Your task to perform on an android device: Open Chrome and go to settings Image 0: 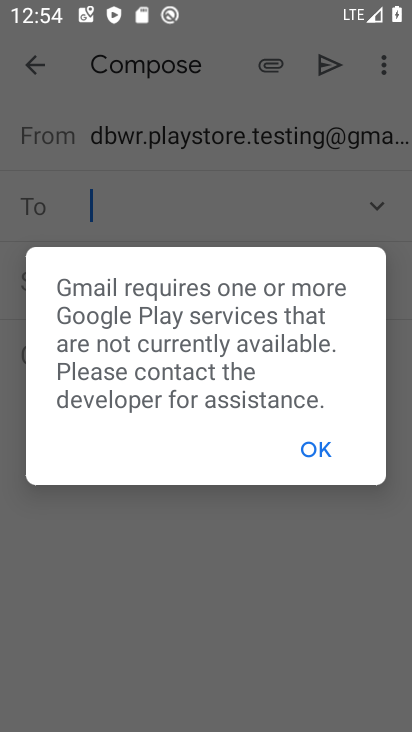
Step 0: press back button
Your task to perform on an android device: Open Chrome and go to settings Image 1: 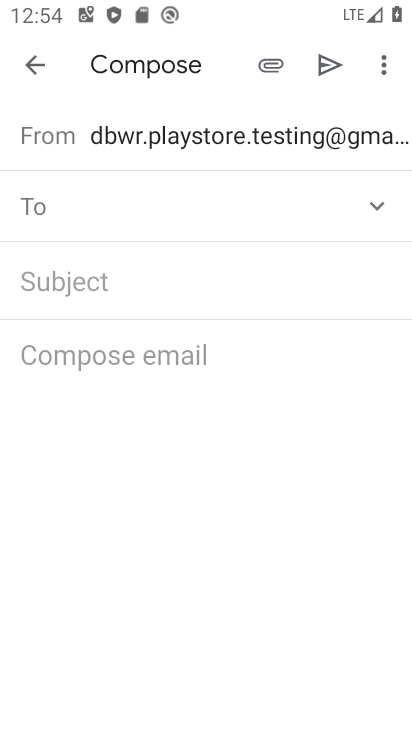
Step 1: press back button
Your task to perform on an android device: Open Chrome and go to settings Image 2: 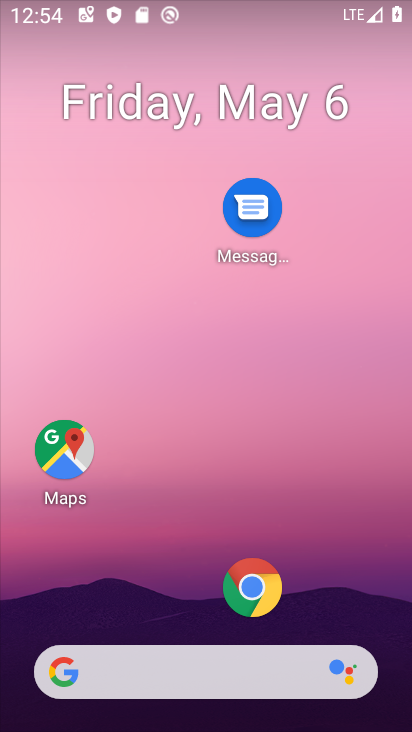
Step 2: click (240, 575)
Your task to perform on an android device: Open Chrome and go to settings Image 3: 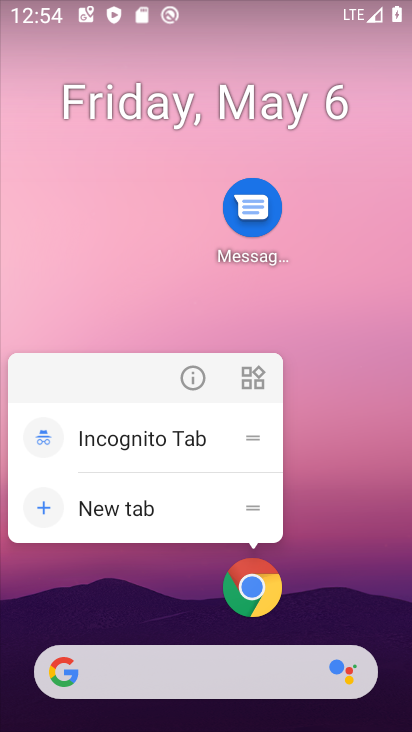
Step 3: click (256, 569)
Your task to perform on an android device: Open Chrome and go to settings Image 4: 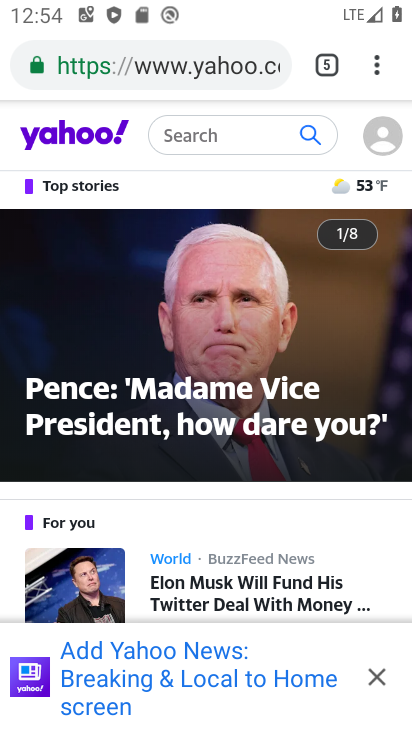
Step 4: task complete